Your task to perform on an android device: toggle priority inbox in the gmail app Image 0: 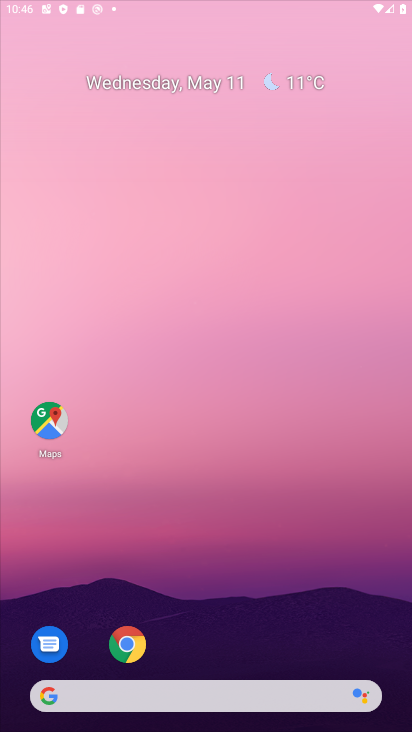
Step 0: drag from (225, 649) to (218, 79)
Your task to perform on an android device: toggle priority inbox in the gmail app Image 1: 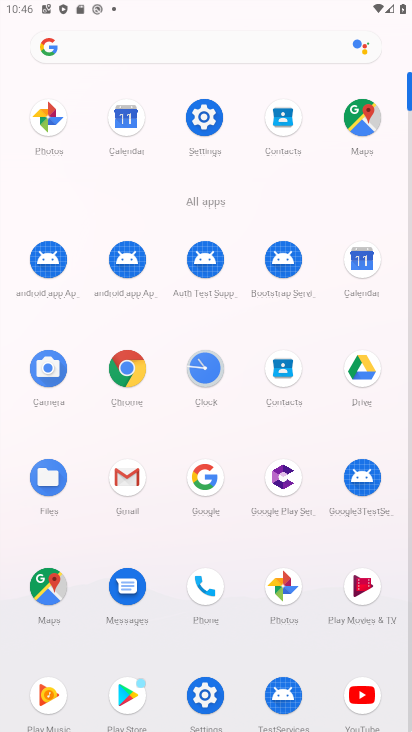
Step 1: click (126, 471)
Your task to perform on an android device: toggle priority inbox in the gmail app Image 2: 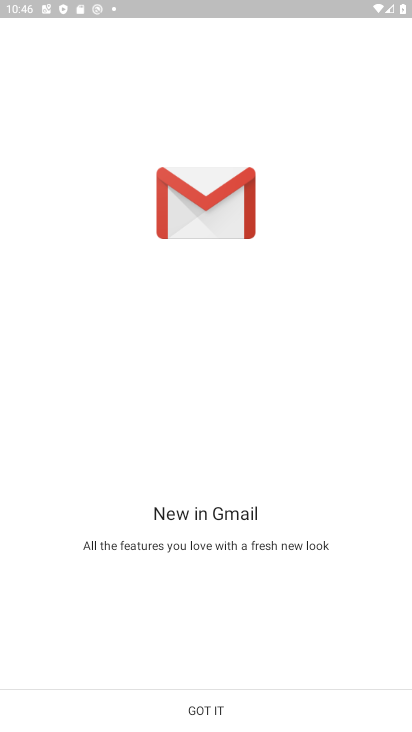
Step 2: click (213, 705)
Your task to perform on an android device: toggle priority inbox in the gmail app Image 3: 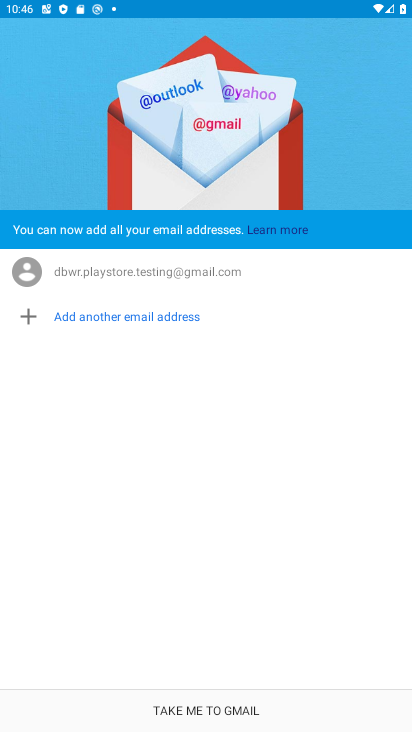
Step 3: click (210, 713)
Your task to perform on an android device: toggle priority inbox in the gmail app Image 4: 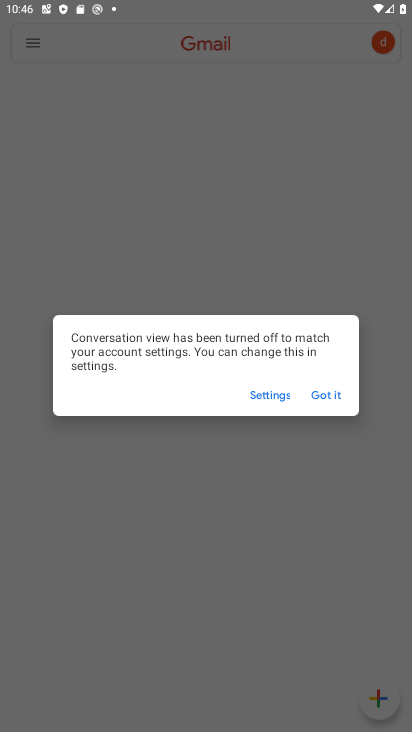
Step 4: click (321, 391)
Your task to perform on an android device: toggle priority inbox in the gmail app Image 5: 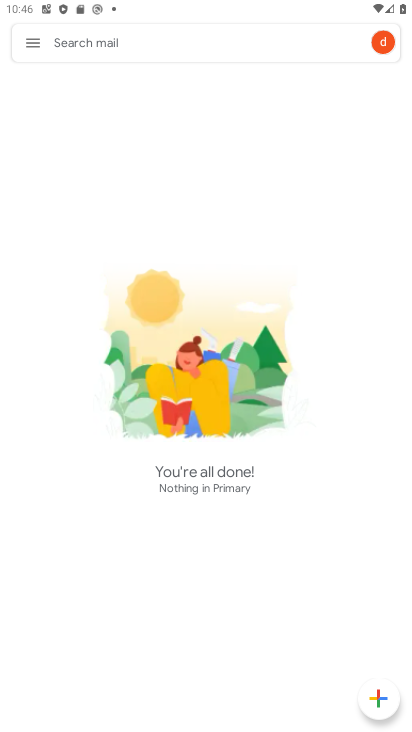
Step 5: click (32, 32)
Your task to perform on an android device: toggle priority inbox in the gmail app Image 6: 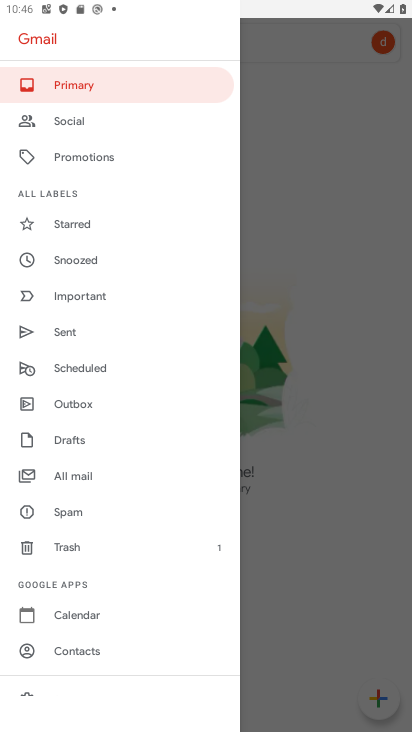
Step 6: drag from (96, 637) to (102, 175)
Your task to perform on an android device: toggle priority inbox in the gmail app Image 7: 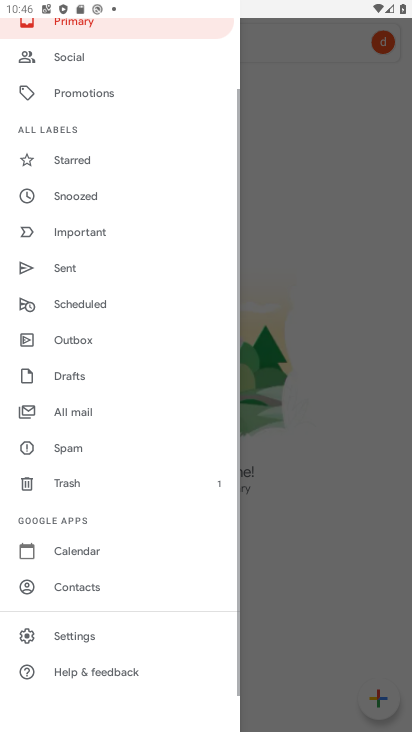
Step 7: click (75, 629)
Your task to perform on an android device: toggle priority inbox in the gmail app Image 8: 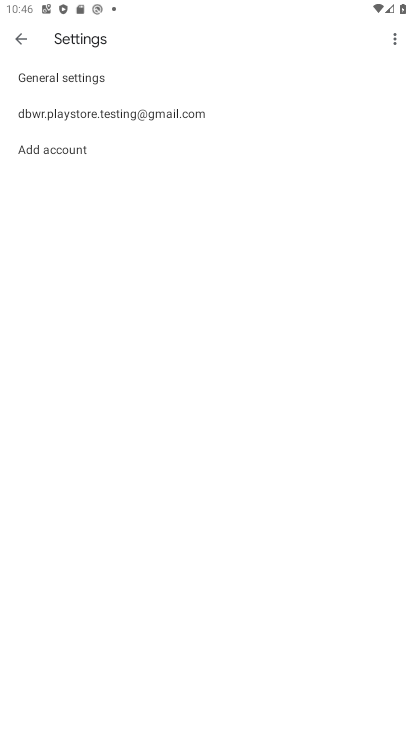
Step 8: click (195, 100)
Your task to perform on an android device: toggle priority inbox in the gmail app Image 9: 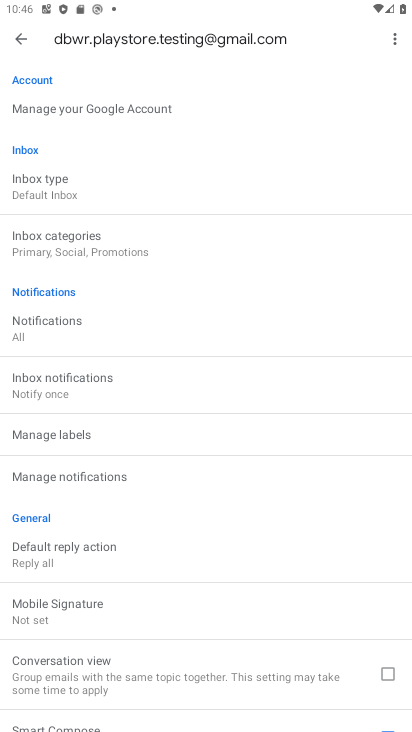
Step 9: click (50, 182)
Your task to perform on an android device: toggle priority inbox in the gmail app Image 10: 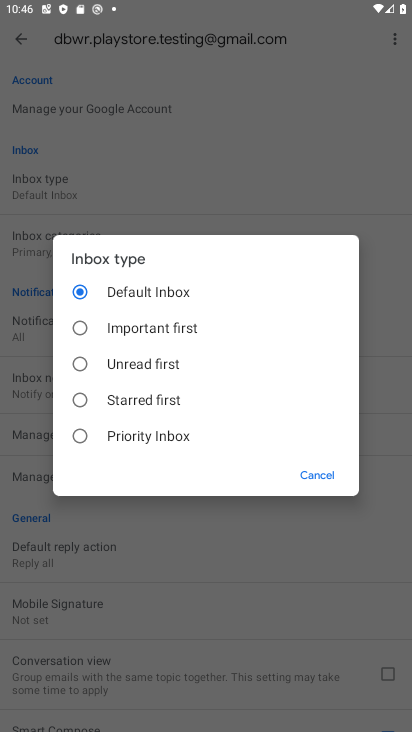
Step 10: click (105, 434)
Your task to perform on an android device: toggle priority inbox in the gmail app Image 11: 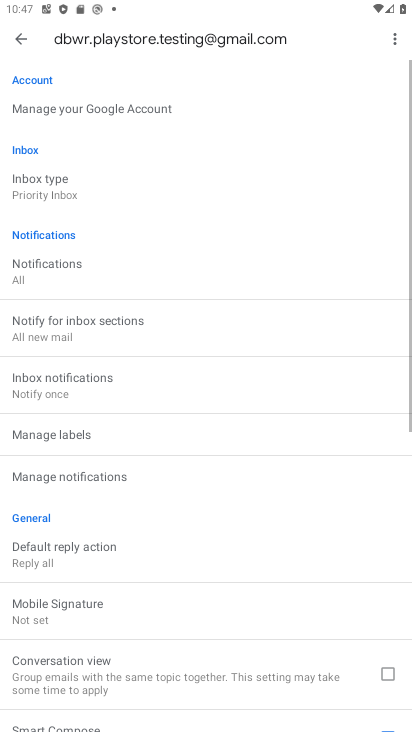
Step 11: task complete